Your task to perform on an android device: turn off smart reply in the gmail app Image 0: 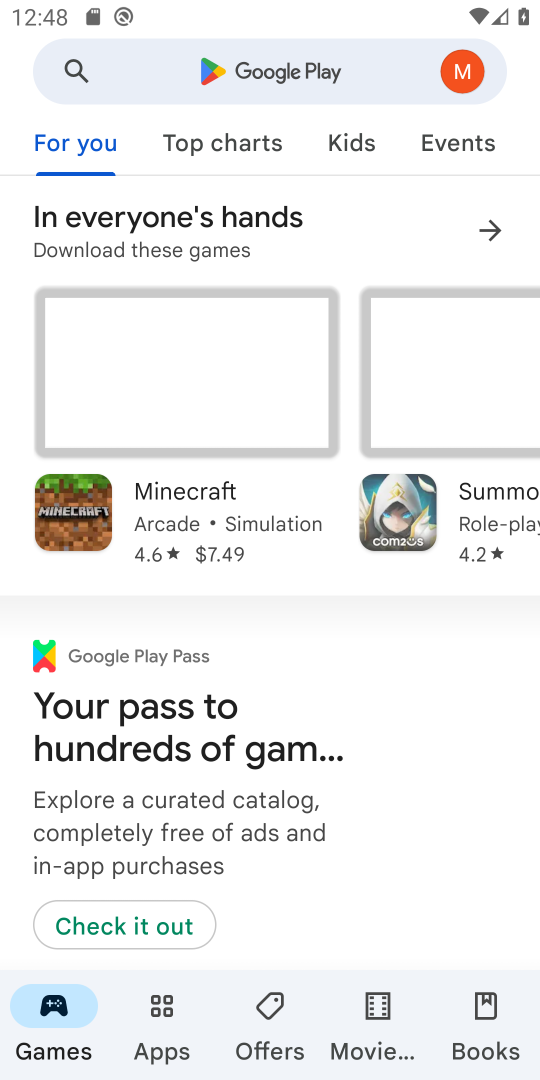
Step 0: press home button
Your task to perform on an android device: turn off smart reply in the gmail app Image 1: 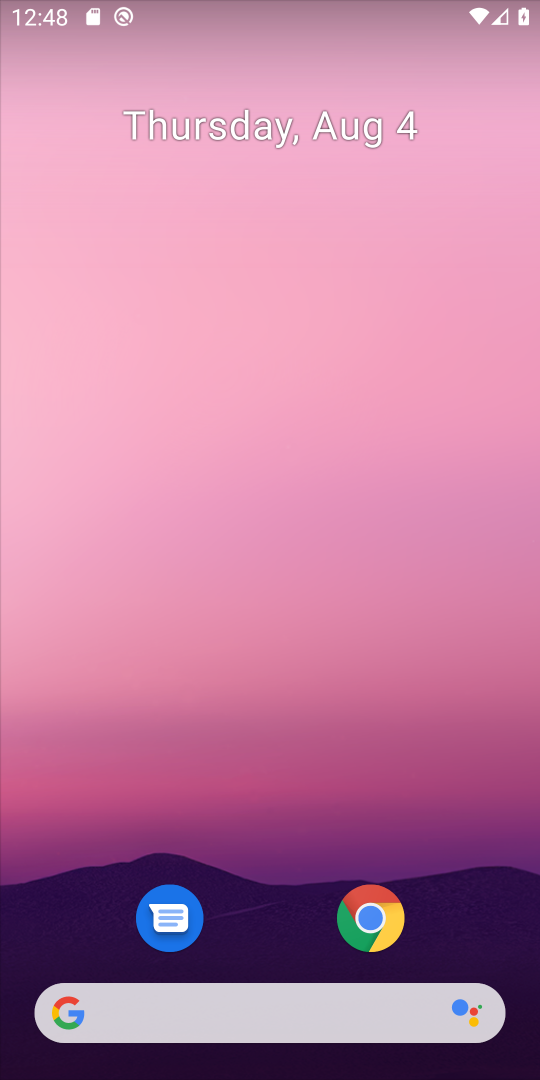
Step 1: drag from (272, 893) to (288, 311)
Your task to perform on an android device: turn off smart reply in the gmail app Image 2: 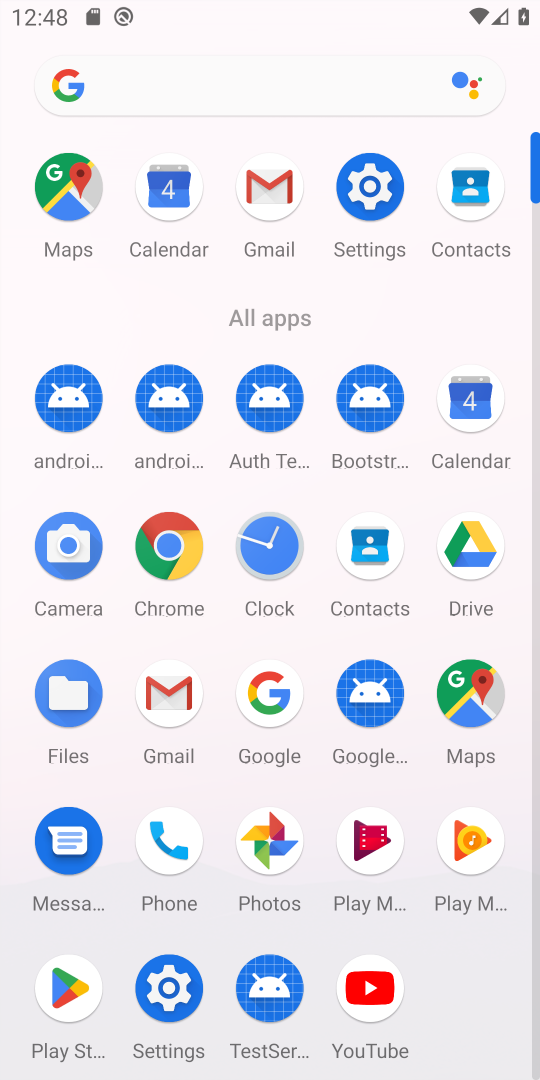
Step 2: click (253, 223)
Your task to perform on an android device: turn off smart reply in the gmail app Image 3: 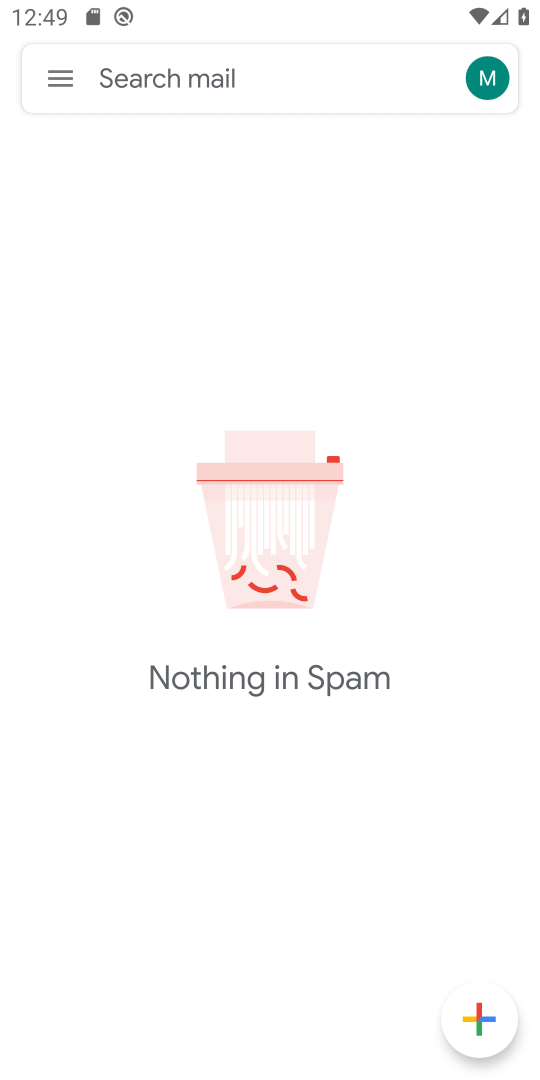
Step 3: click (77, 86)
Your task to perform on an android device: turn off smart reply in the gmail app Image 4: 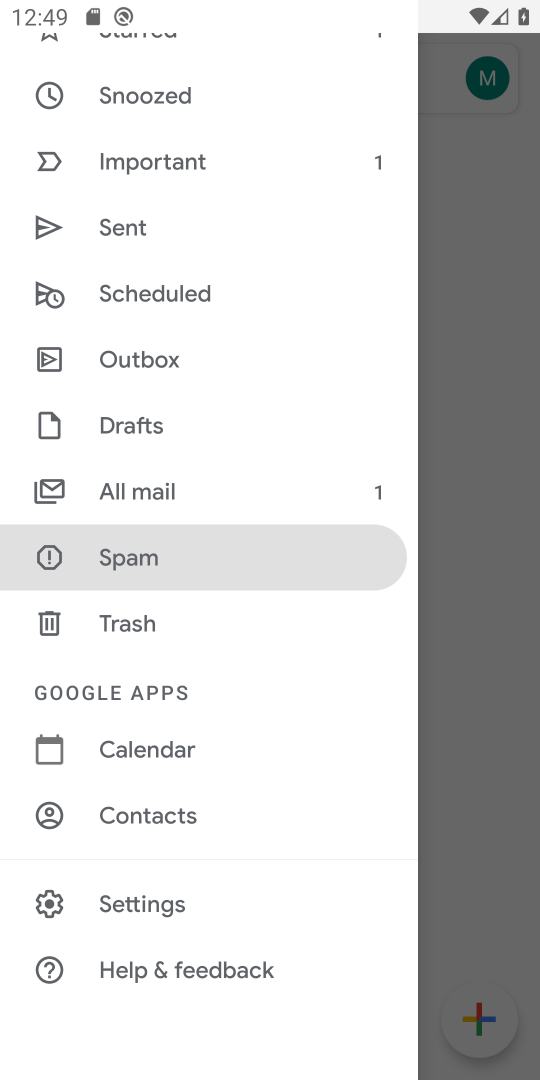
Step 4: click (199, 898)
Your task to perform on an android device: turn off smart reply in the gmail app Image 5: 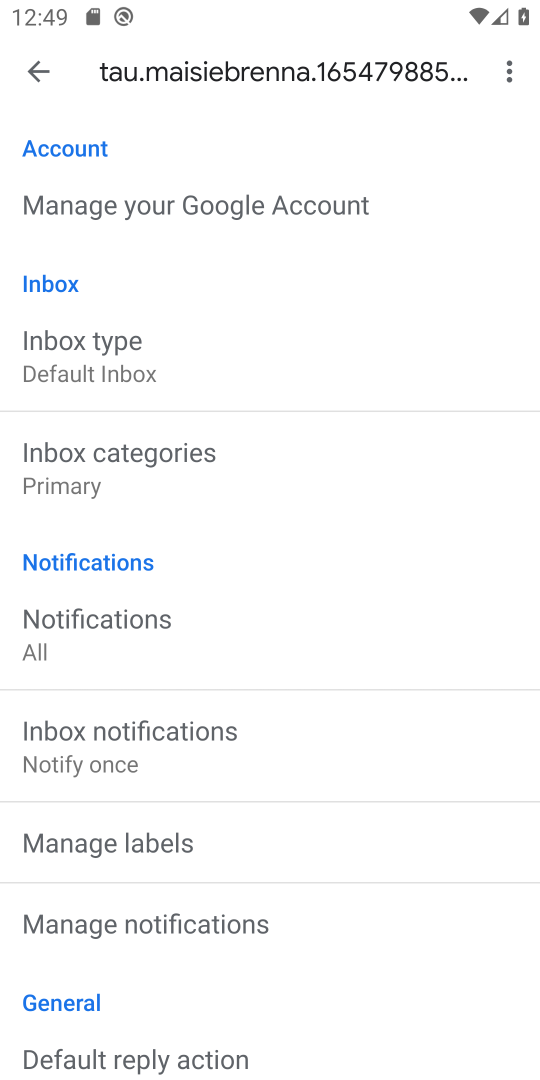
Step 5: drag from (185, 934) to (171, 574)
Your task to perform on an android device: turn off smart reply in the gmail app Image 6: 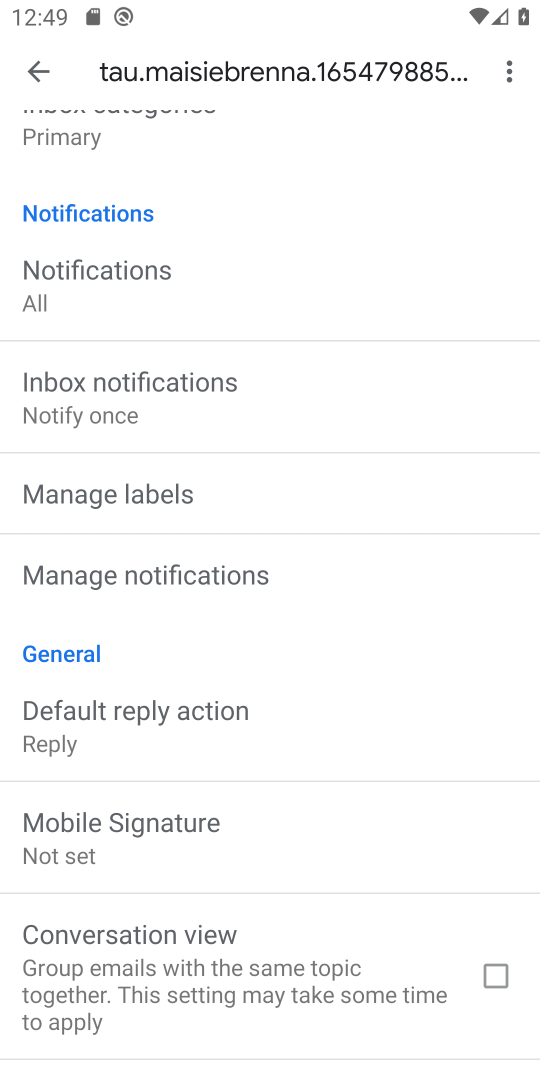
Step 6: drag from (183, 889) to (154, 508)
Your task to perform on an android device: turn off smart reply in the gmail app Image 7: 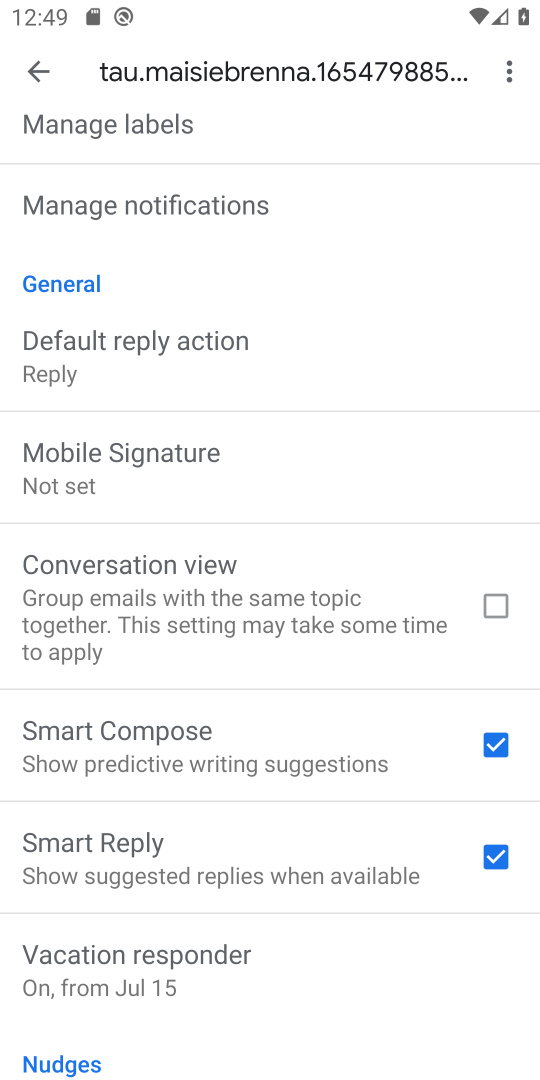
Step 7: click (494, 867)
Your task to perform on an android device: turn off smart reply in the gmail app Image 8: 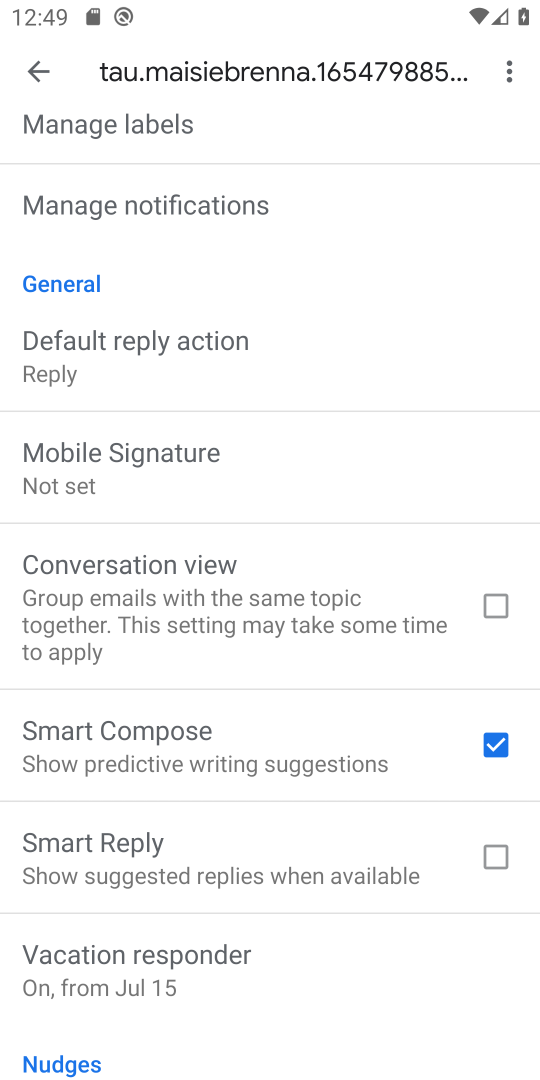
Step 8: task complete